Your task to perform on an android device: read, delete, or share a saved page in the chrome app Image 0: 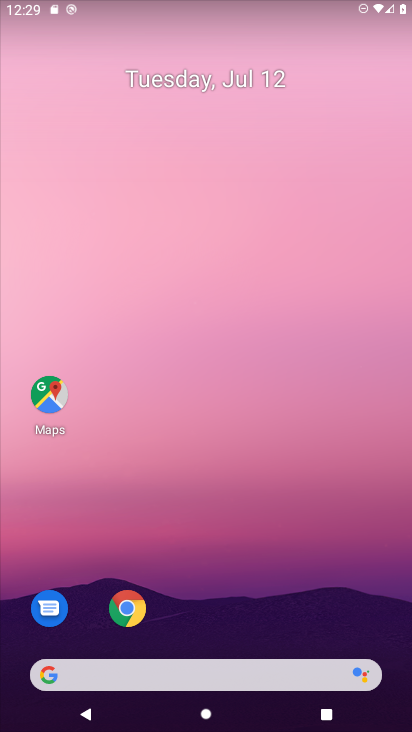
Step 0: drag from (195, 647) to (153, 131)
Your task to perform on an android device: read, delete, or share a saved page in the chrome app Image 1: 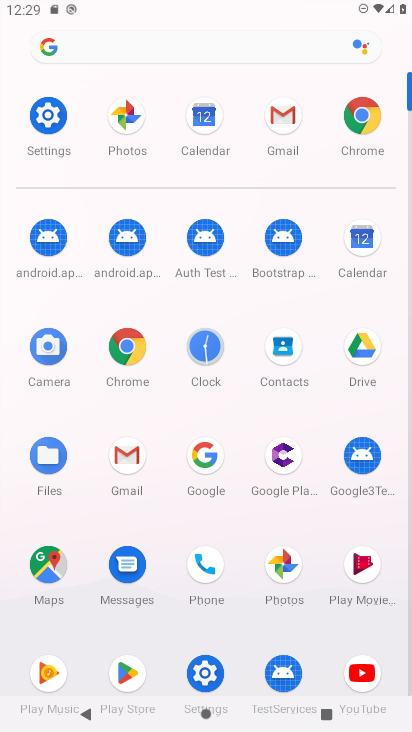
Step 1: click (362, 132)
Your task to perform on an android device: read, delete, or share a saved page in the chrome app Image 2: 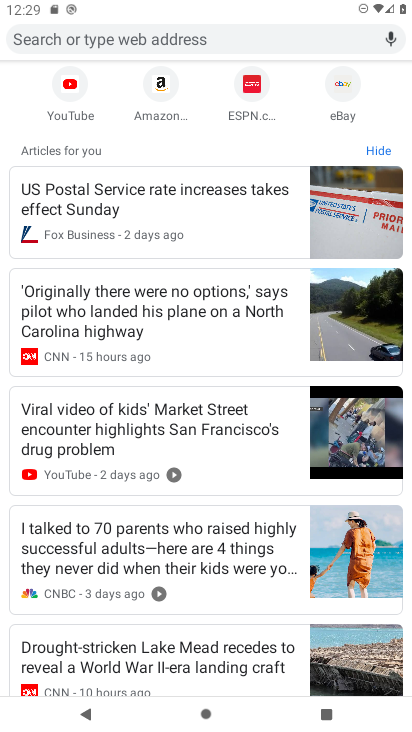
Step 2: drag from (390, 88) to (383, 407)
Your task to perform on an android device: read, delete, or share a saved page in the chrome app Image 3: 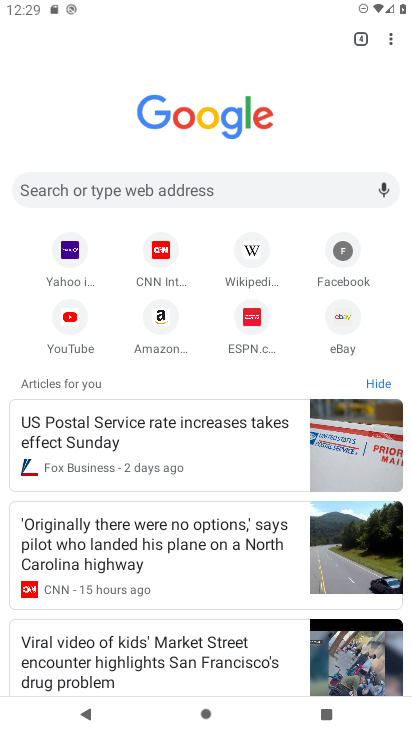
Step 3: drag from (392, 37) to (285, 147)
Your task to perform on an android device: read, delete, or share a saved page in the chrome app Image 4: 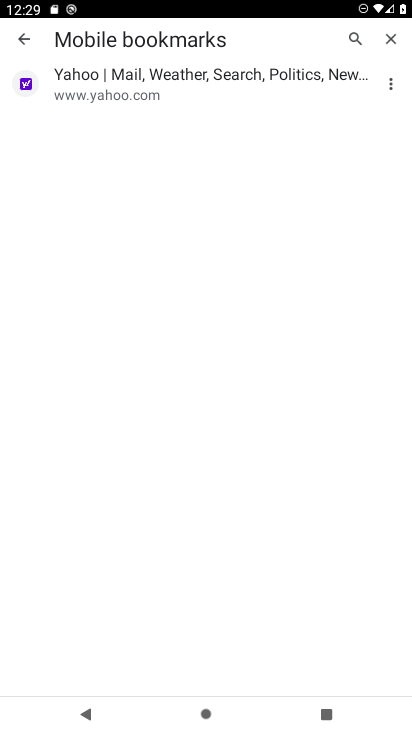
Step 4: click (14, 27)
Your task to perform on an android device: read, delete, or share a saved page in the chrome app Image 5: 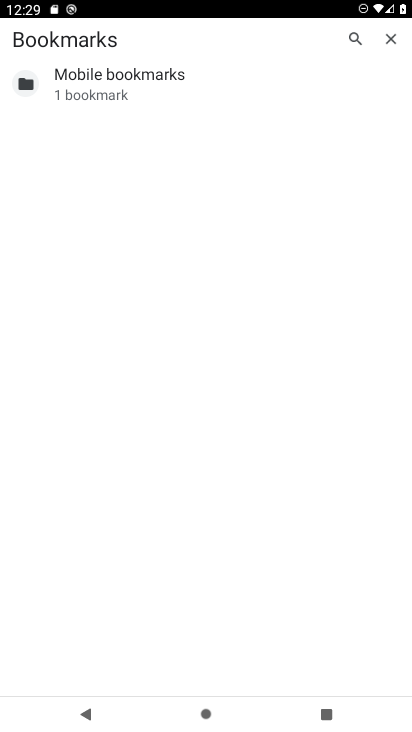
Step 5: task complete